Your task to perform on an android device: open app "Google Play services" (install if not already installed) Image 0: 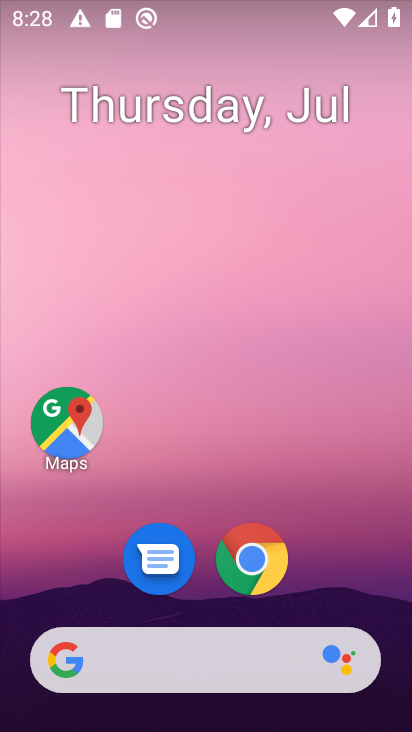
Step 0: drag from (206, 614) to (216, 46)
Your task to perform on an android device: open app "Google Play services" (install if not already installed) Image 1: 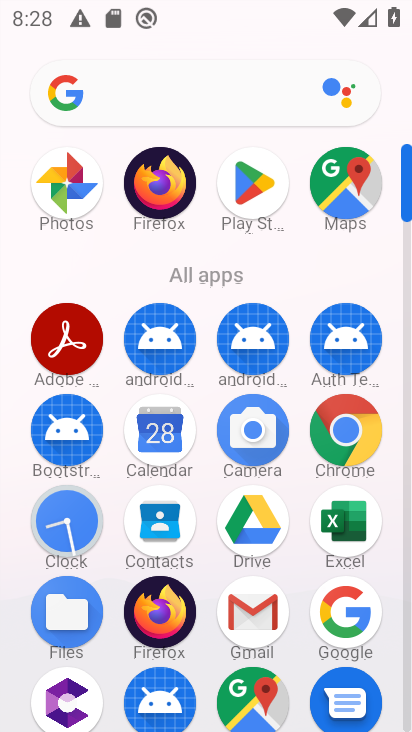
Step 1: click (258, 210)
Your task to perform on an android device: open app "Google Play services" (install if not already installed) Image 2: 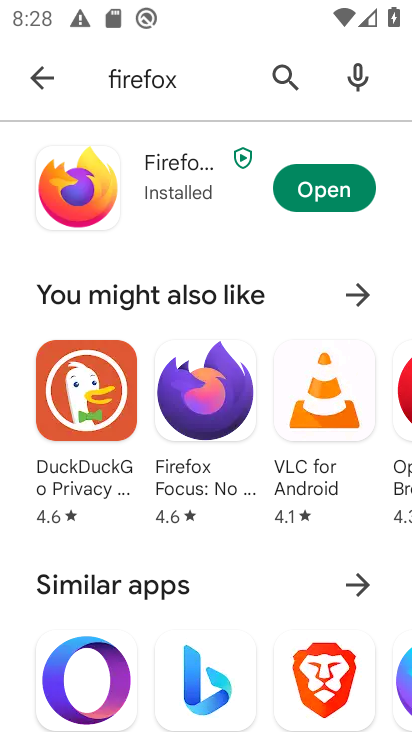
Step 2: click (343, 85)
Your task to perform on an android device: open app "Google Play services" (install if not already installed) Image 3: 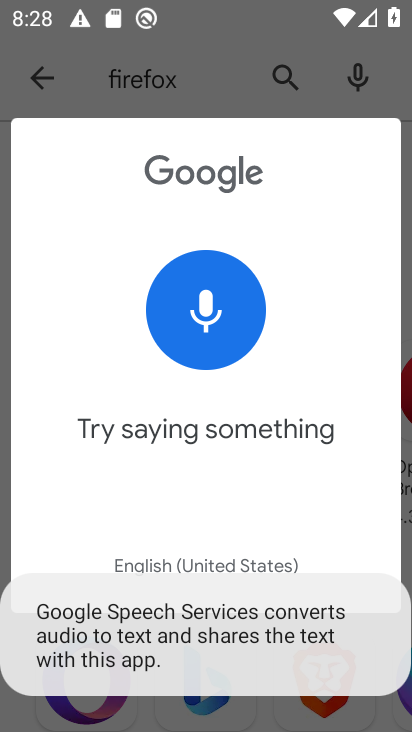
Step 3: click (293, 95)
Your task to perform on an android device: open app "Google Play services" (install if not already installed) Image 4: 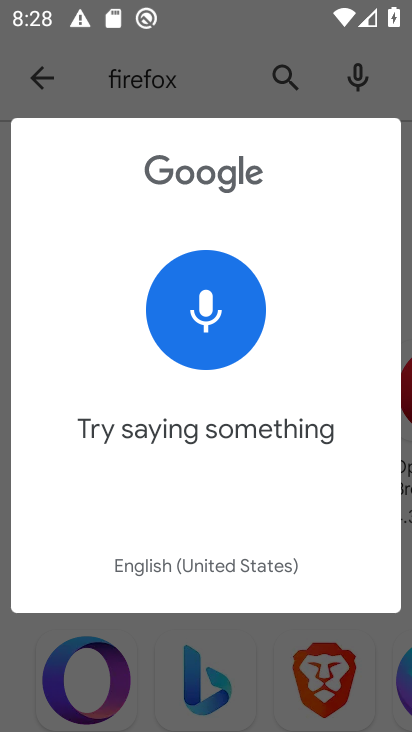
Step 4: click (268, 83)
Your task to perform on an android device: open app "Google Play services" (install if not already installed) Image 5: 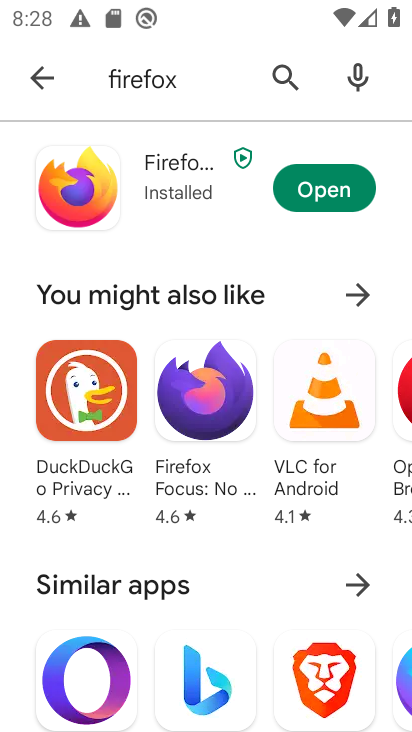
Step 5: click (282, 80)
Your task to perform on an android device: open app "Google Play services" (install if not already installed) Image 6: 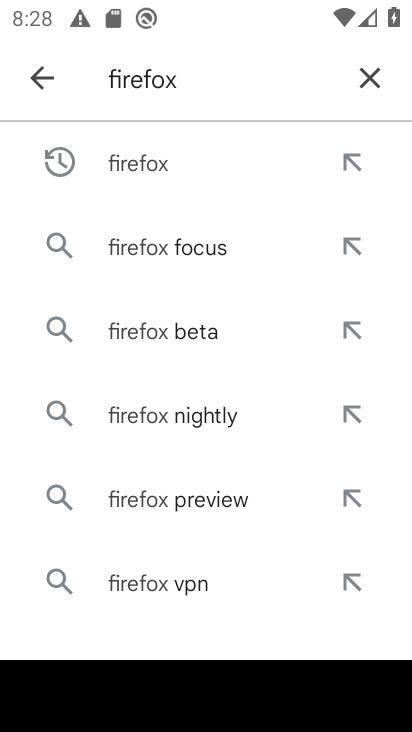
Step 6: click (379, 78)
Your task to perform on an android device: open app "Google Play services" (install if not already installed) Image 7: 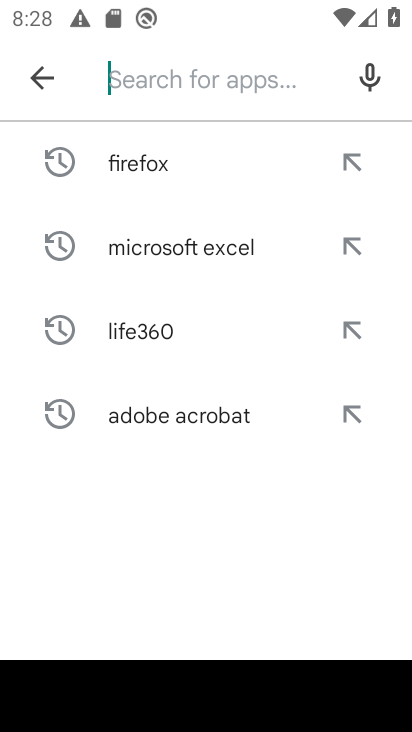
Step 7: type "google play"
Your task to perform on an android device: open app "Google Play services" (install if not already installed) Image 8: 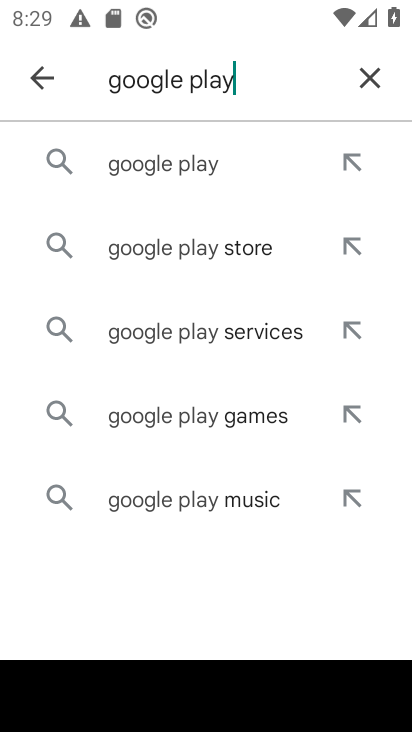
Step 8: click (183, 156)
Your task to perform on an android device: open app "Google Play services" (install if not already installed) Image 9: 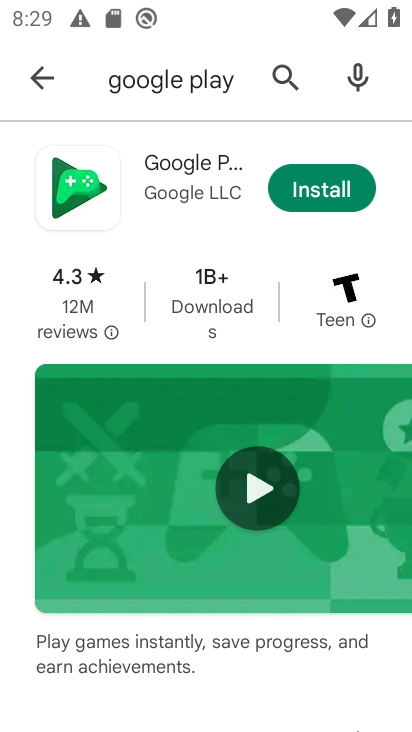
Step 9: click (341, 198)
Your task to perform on an android device: open app "Google Play services" (install if not already installed) Image 10: 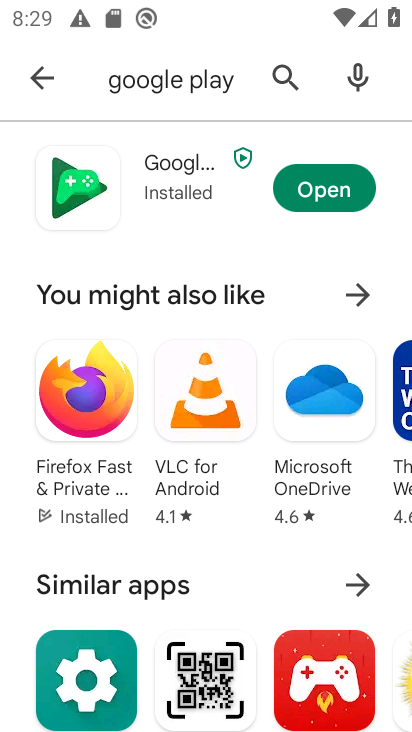
Step 10: click (341, 198)
Your task to perform on an android device: open app "Google Play services" (install if not already installed) Image 11: 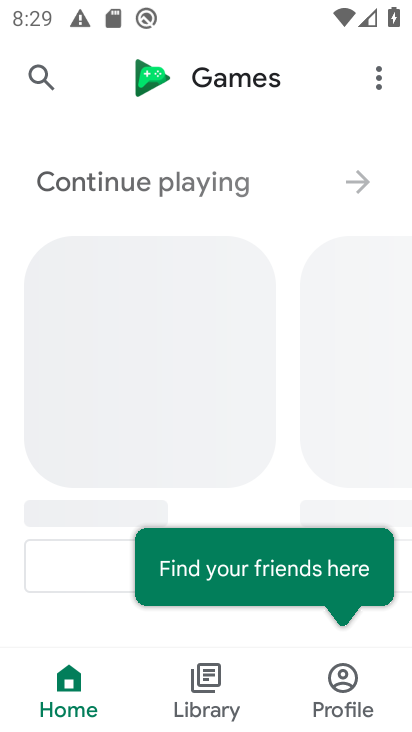
Step 11: task complete